Your task to perform on an android device: What is the recent news? Image 0: 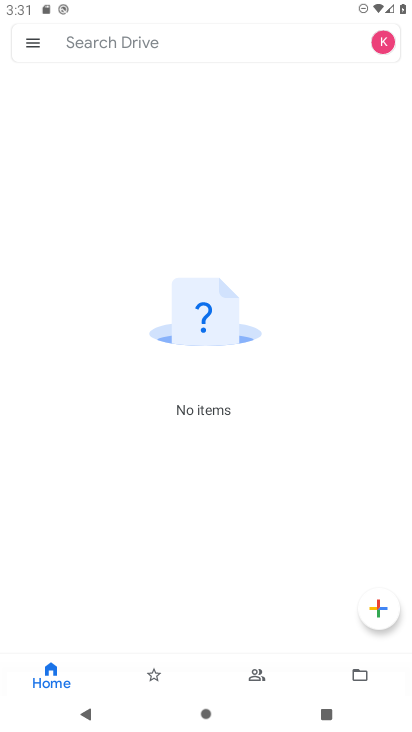
Step 0: press home button
Your task to perform on an android device: What is the recent news? Image 1: 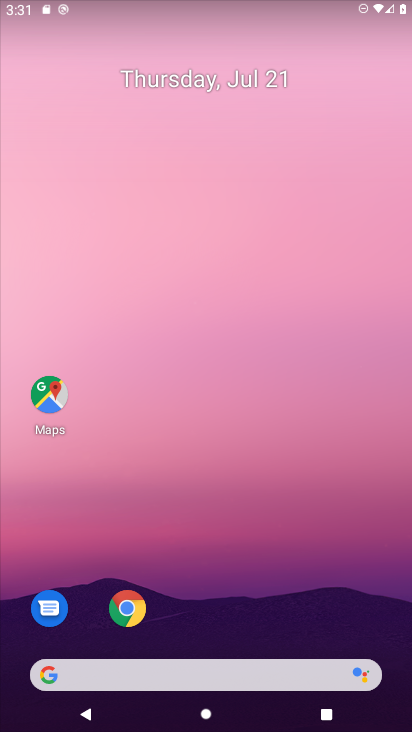
Step 1: drag from (209, 619) to (216, 297)
Your task to perform on an android device: What is the recent news? Image 2: 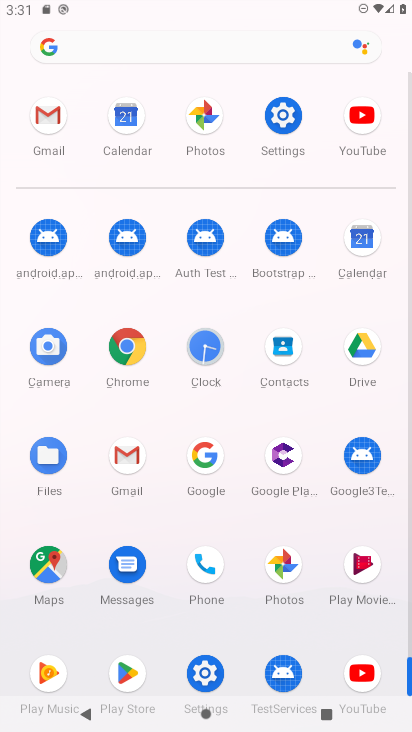
Step 2: click (205, 466)
Your task to perform on an android device: What is the recent news? Image 3: 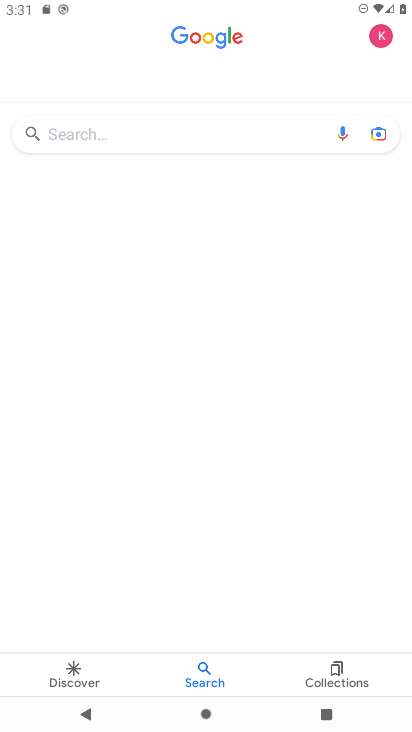
Step 3: click (158, 139)
Your task to perform on an android device: What is the recent news? Image 4: 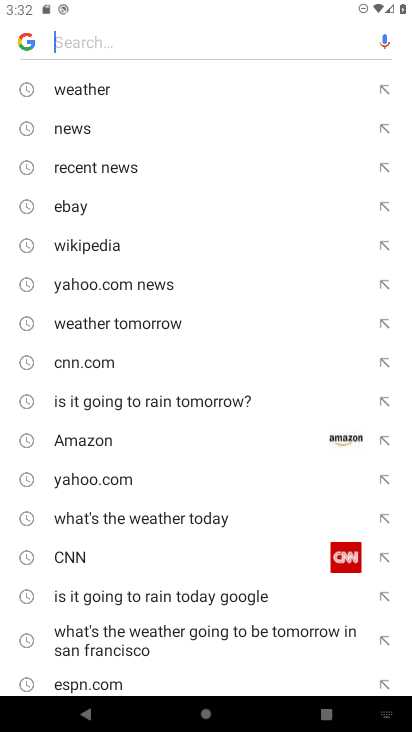
Step 4: click (77, 138)
Your task to perform on an android device: What is the recent news? Image 5: 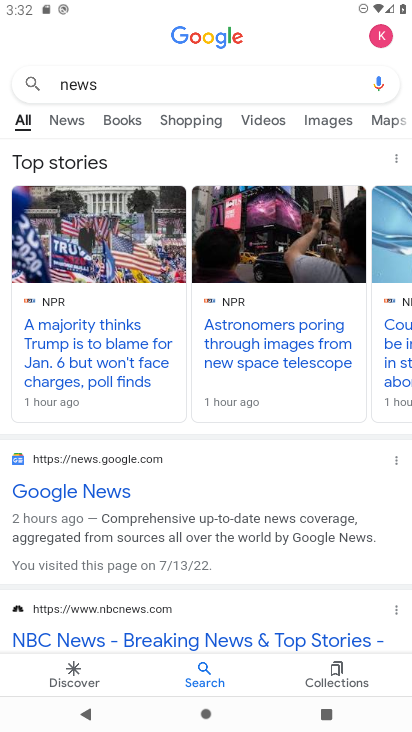
Step 5: click (81, 124)
Your task to perform on an android device: What is the recent news? Image 6: 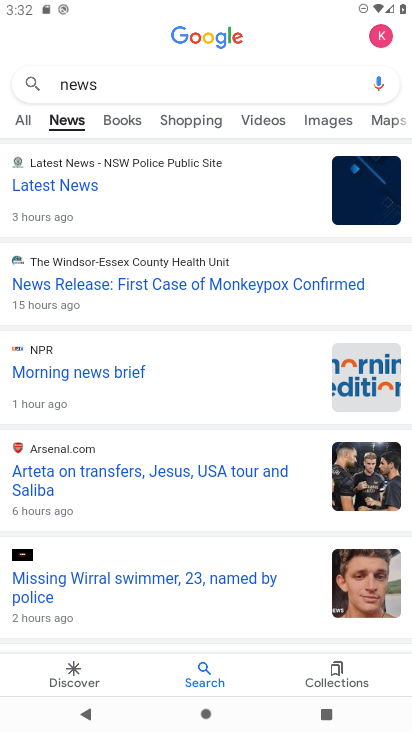
Step 6: task complete